Your task to perform on an android device: Go to notification settings Image 0: 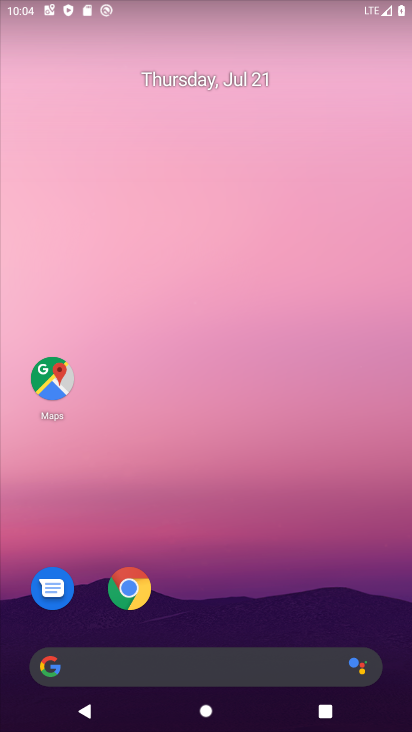
Step 0: drag from (400, 683) to (382, 162)
Your task to perform on an android device: Go to notification settings Image 1: 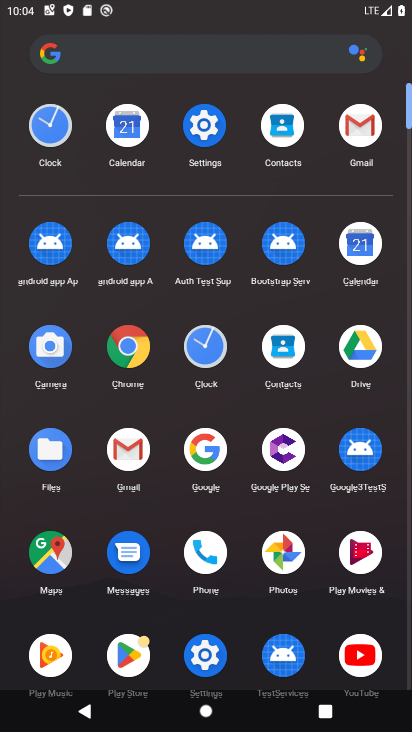
Step 1: click (211, 642)
Your task to perform on an android device: Go to notification settings Image 2: 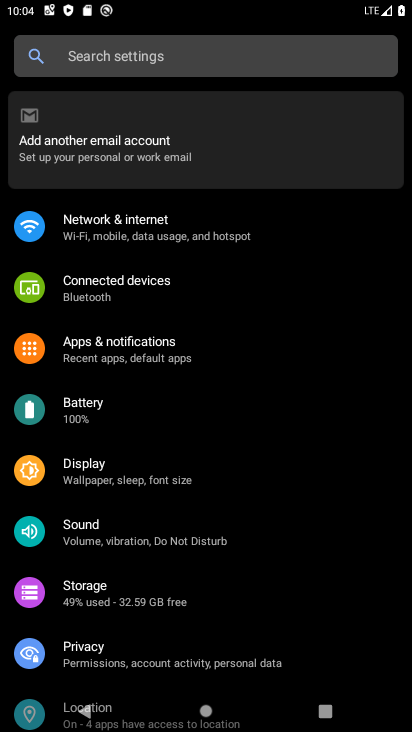
Step 2: click (159, 355)
Your task to perform on an android device: Go to notification settings Image 3: 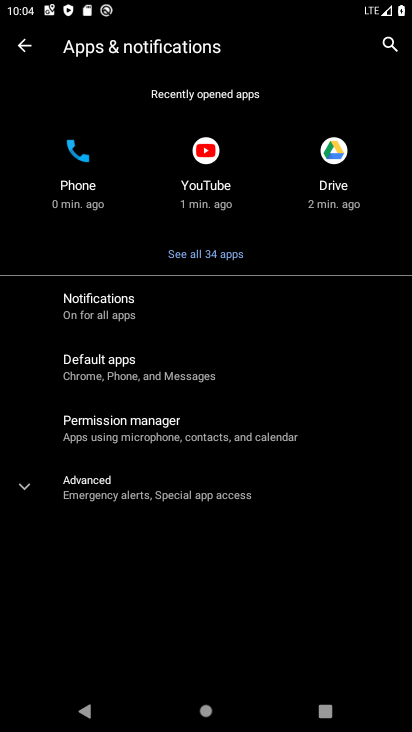
Step 3: click (92, 299)
Your task to perform on an android device: Go to notification settings Image 4: 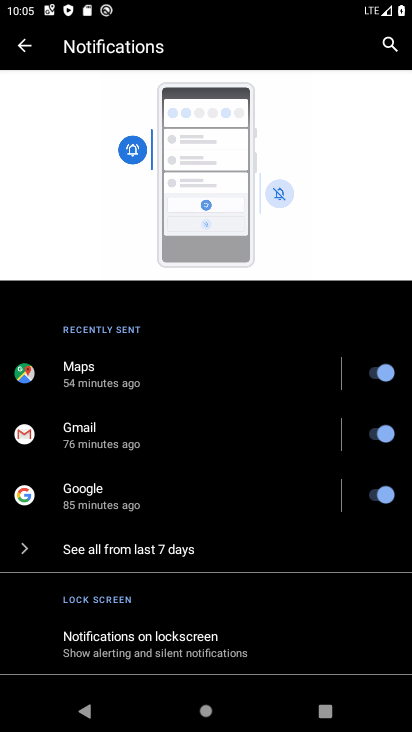
Step 4: drag from (258, 551) to (259, 300)
Your task to perform on an android device: Go to notification settings Image 5: 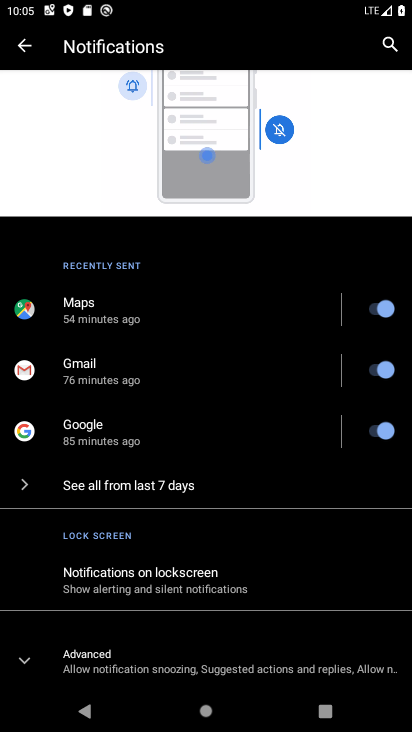
Step 5: click (35, 665)
Your task to perform on an android device: Go to notification settings Image 6: 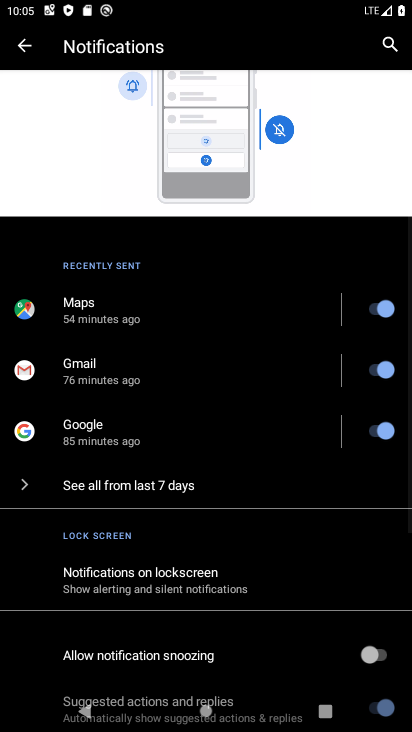
Step 6: task complete